Your task to perform on an android device: See recent photos Image 0: 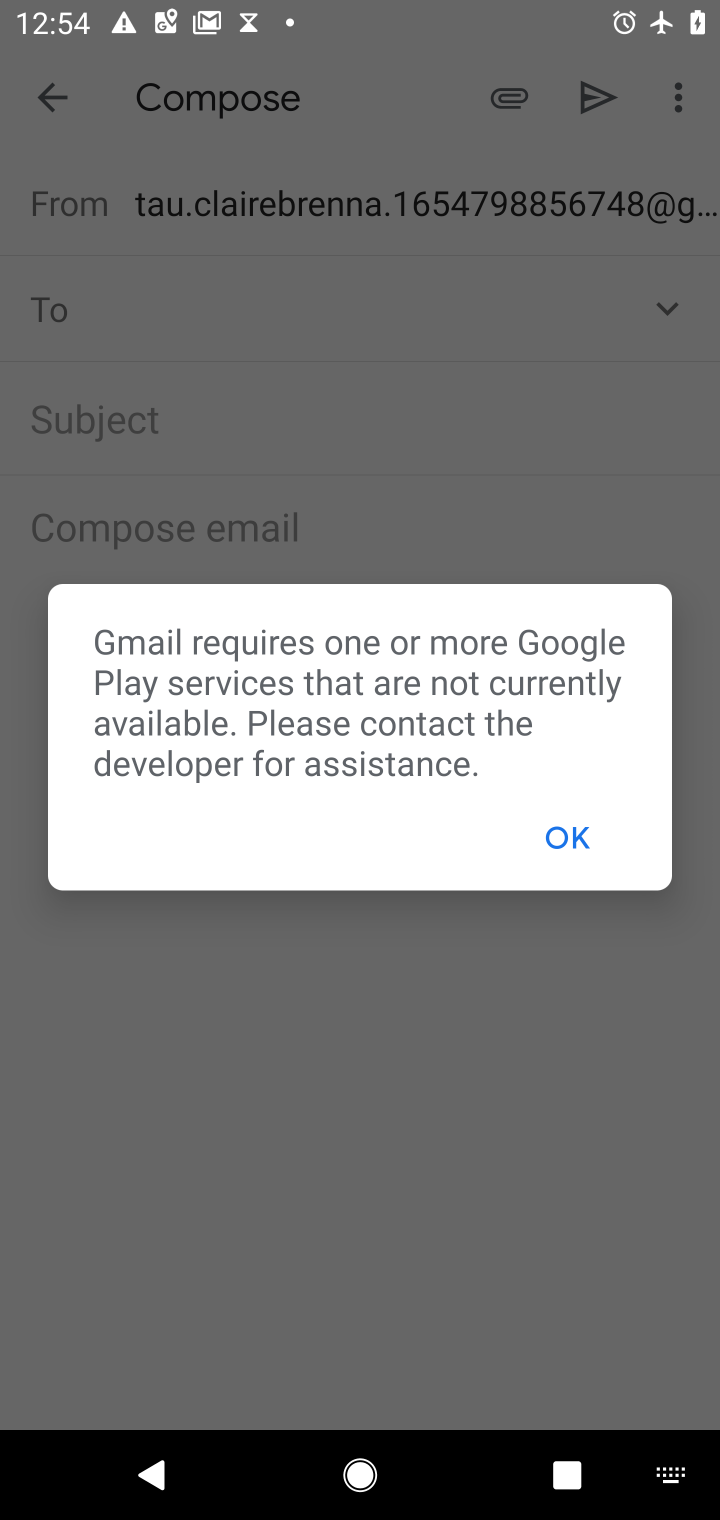
Step 0: press home button
Your task to perform on an android device: See recent photos Image 1: 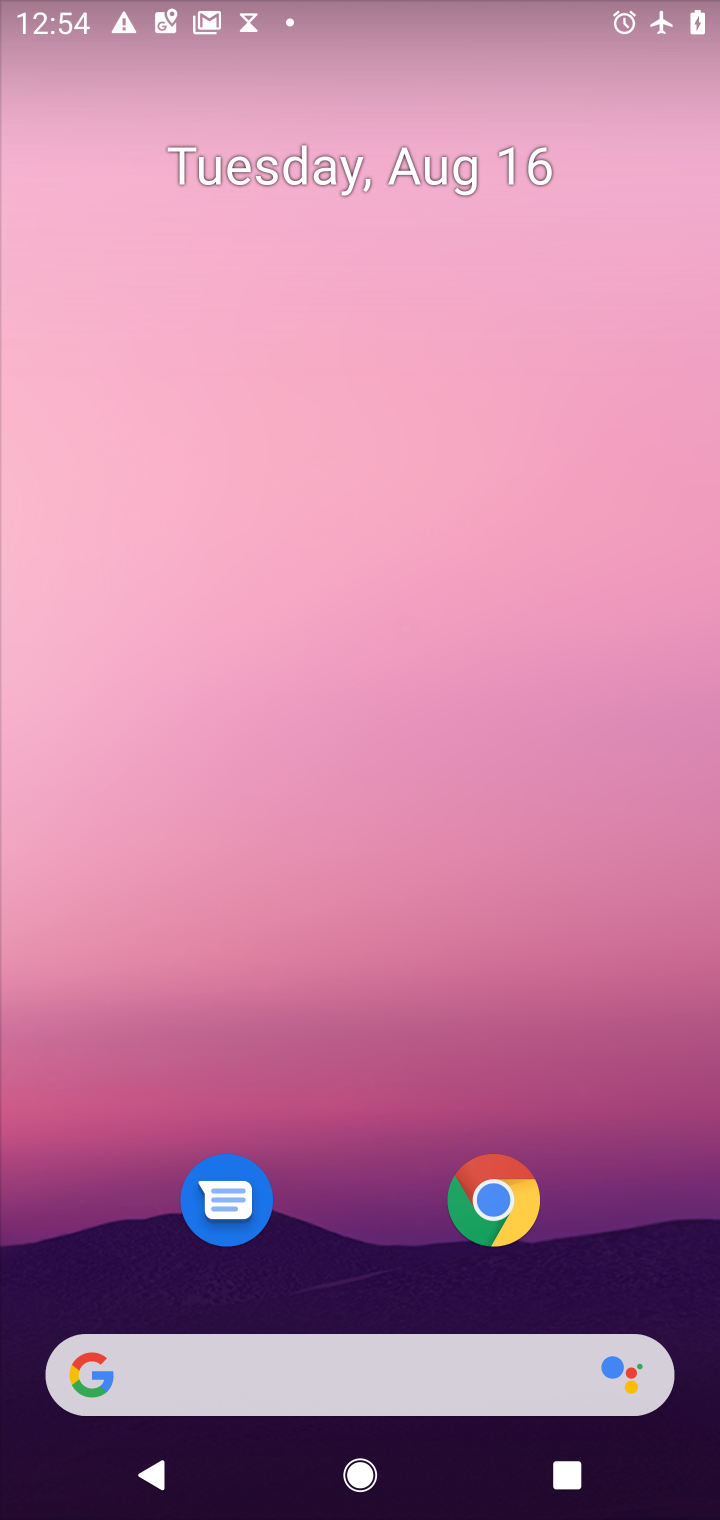
Step 1: drag from (347, 1225) to (222, 198)
Your task to perform on an android device: See recent photos Image 2: 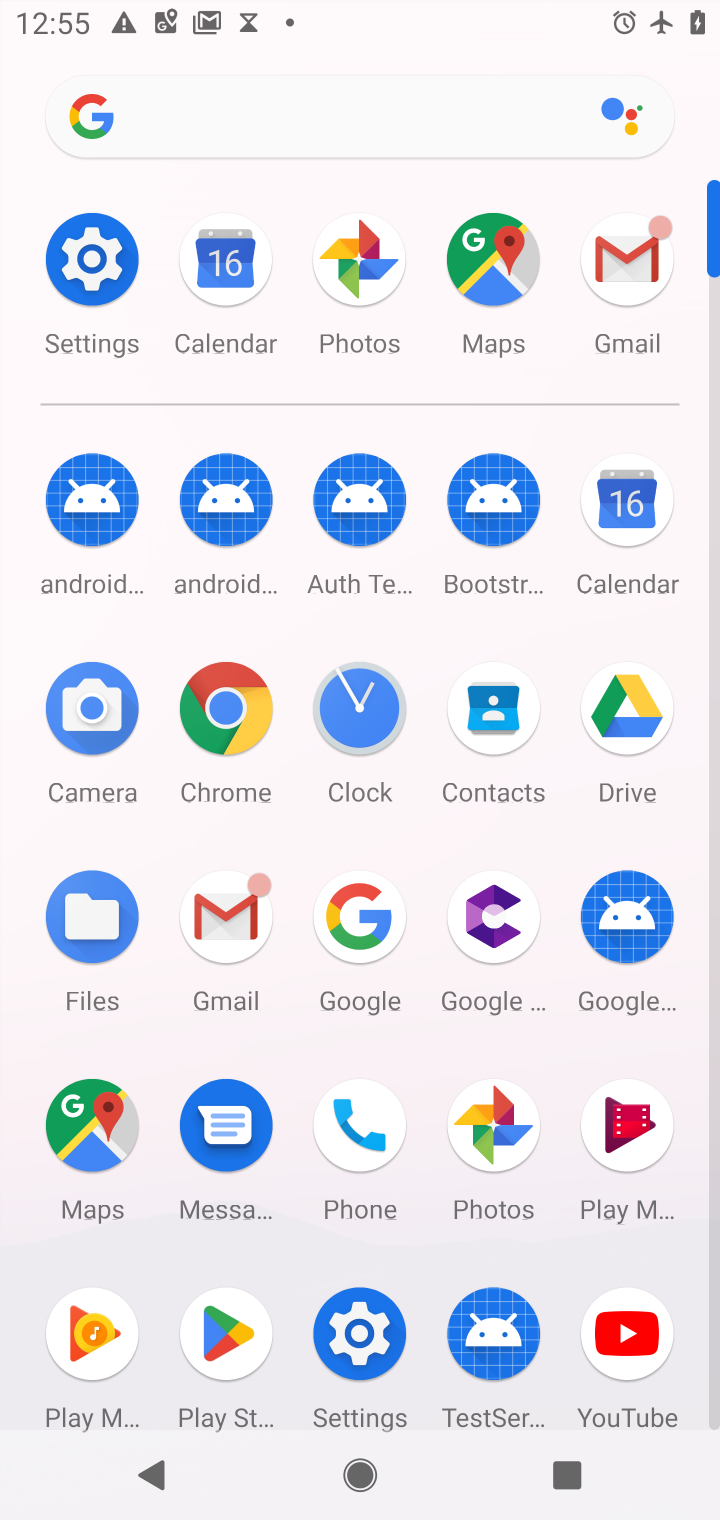
Step 2: click (367, 271)
Your task to perform on an android device: See recent photos Image 3: 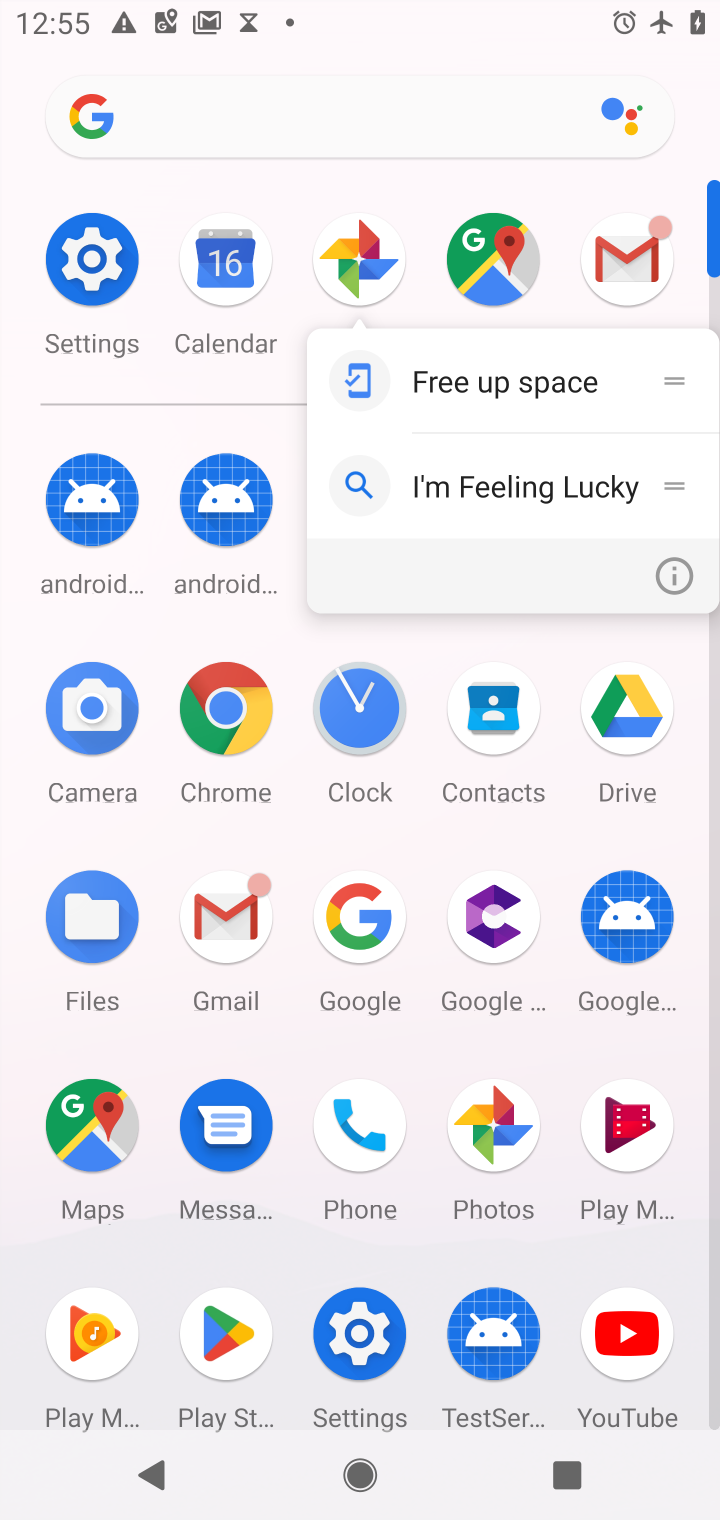
Step 3: click (367, 271)
Your task to perform on an android device: See recent photos Image 4: 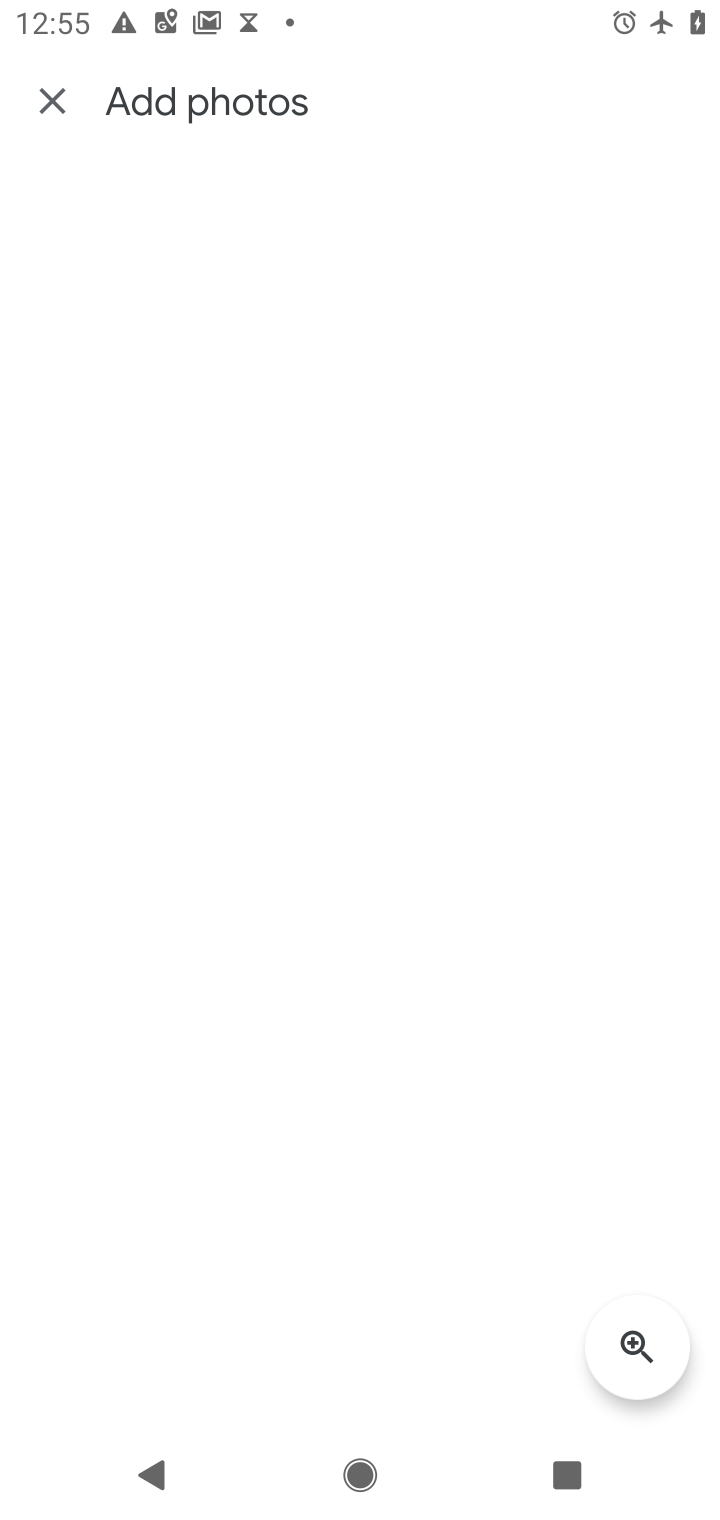
Step 4: click (36, 94)
Your task to perform on an android device: See recent photos Image 5: 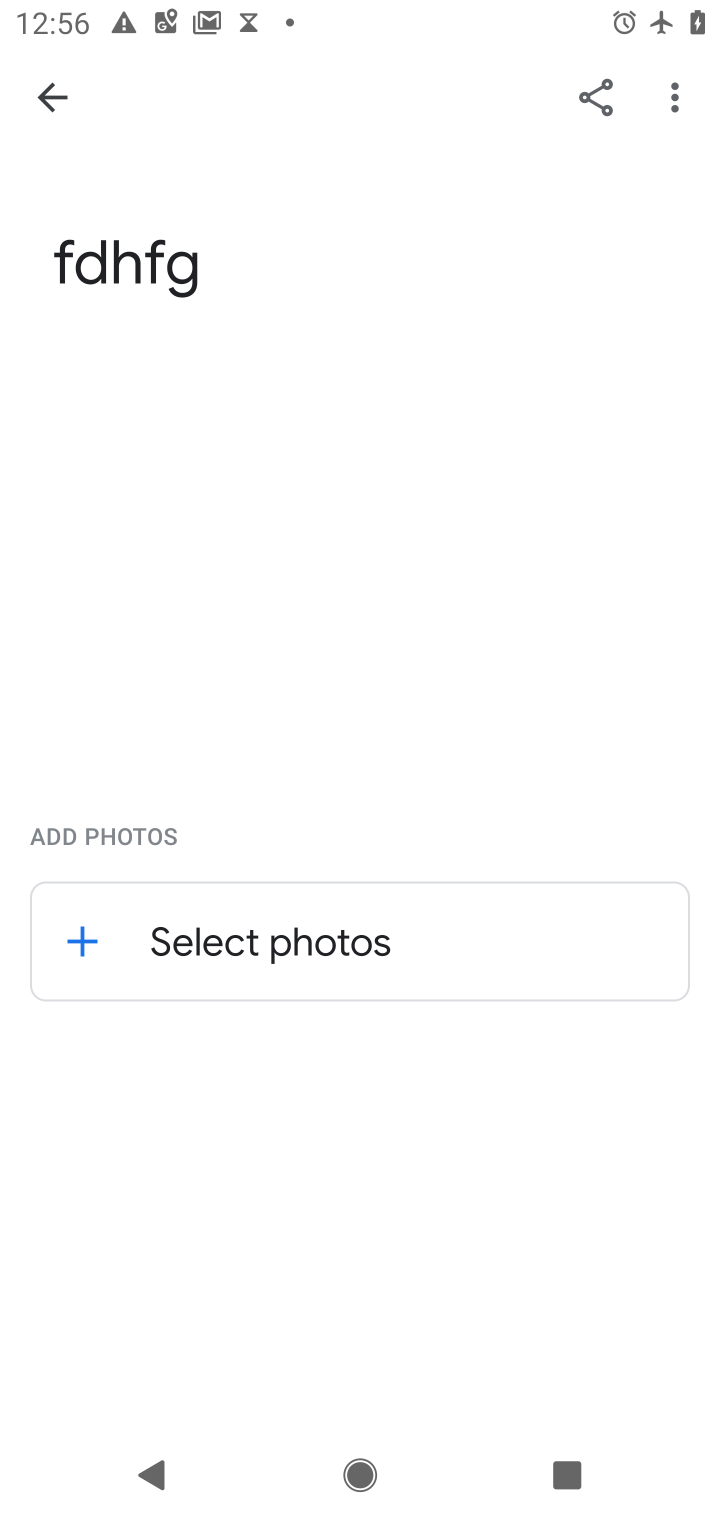
Step 5: click (44, 91)
Your task to perform on an android device: See recent photos Image 6: 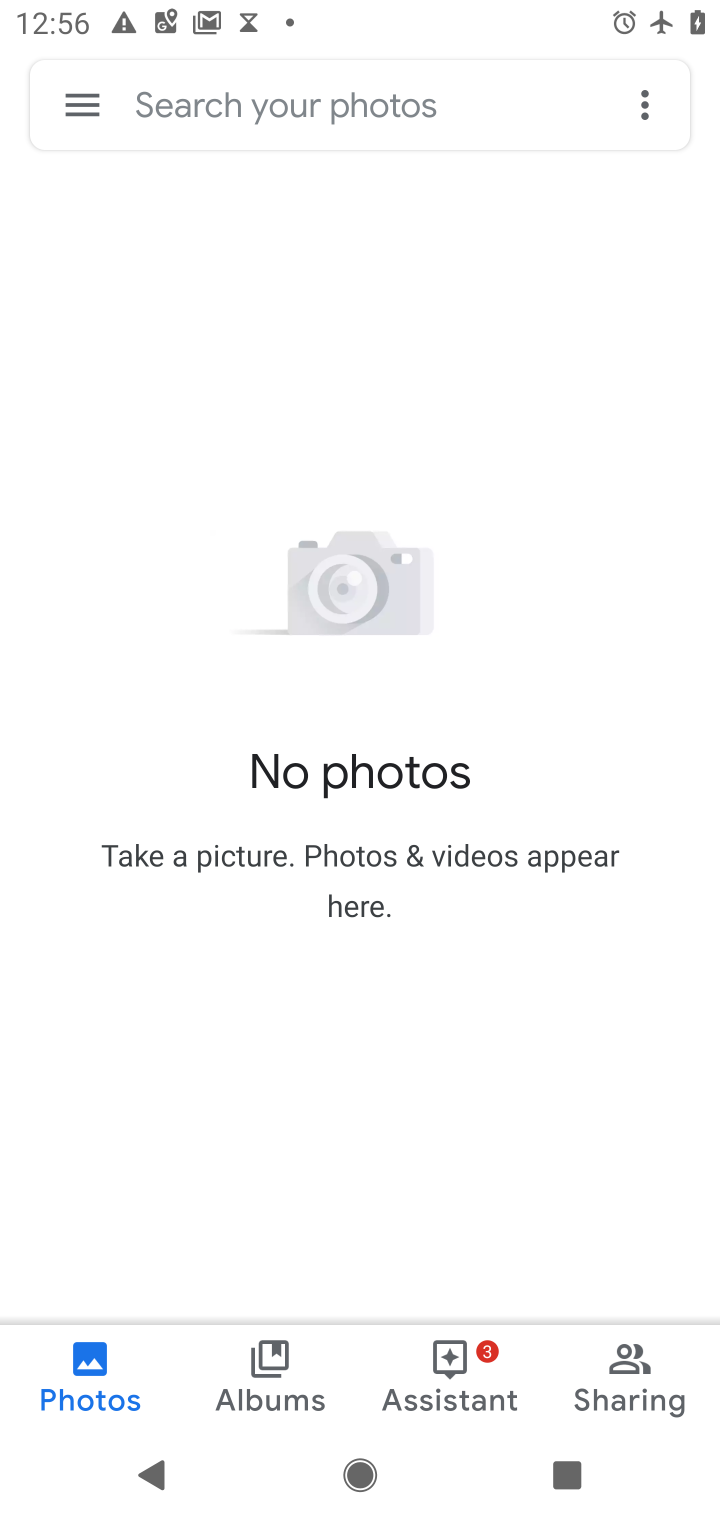
Step 6: task complete